Your task to perform on an android device: Clear the shopping cart on newegg. Add "acer predator" to the cart on newegg, then select checkout. Image 0: 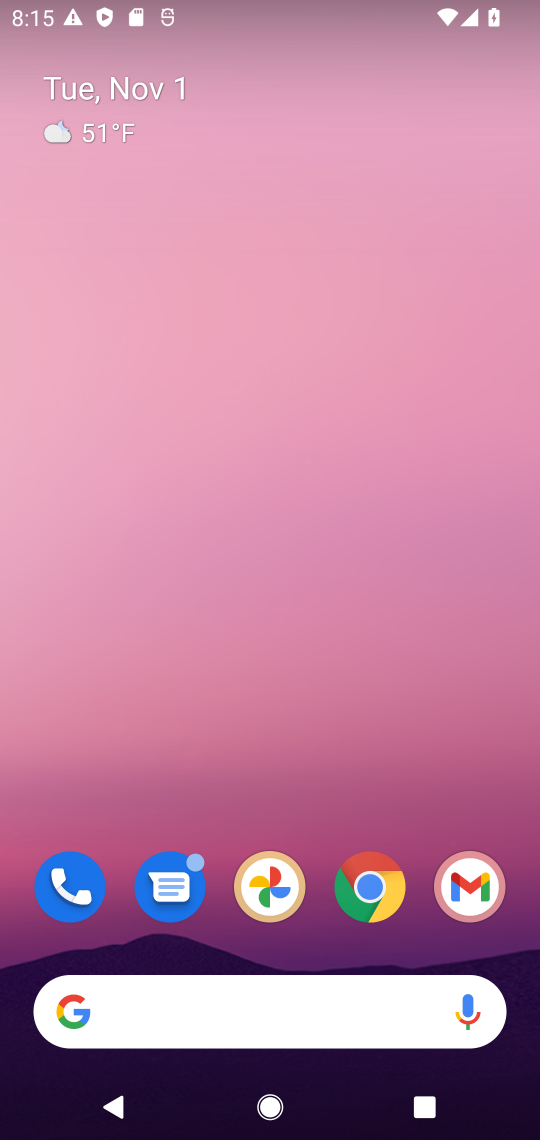
Step 0: drag from (203, 852) to (207, 204)
Your task to perform on an android device: Clear the shopping cart on newegg. Add "acer predator" to the cart on newegg, then select checkout. Image 1: 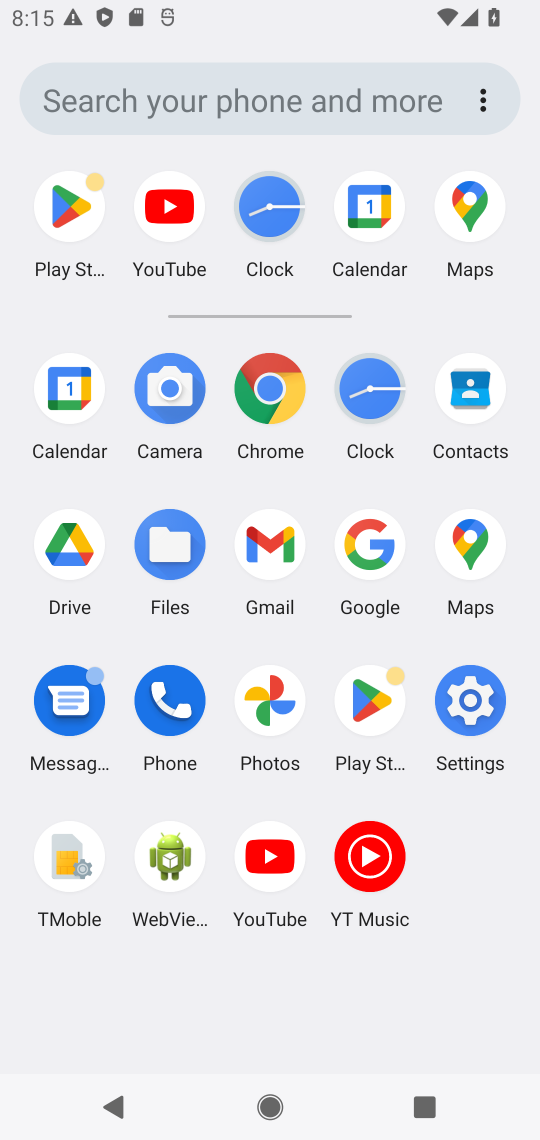
Step 1: click (370, 529)
Your task to perform on an android device: Clear the shopping cart on newegg. Add "acer predator" to the cart on newegg, then select checkout. Image 2: 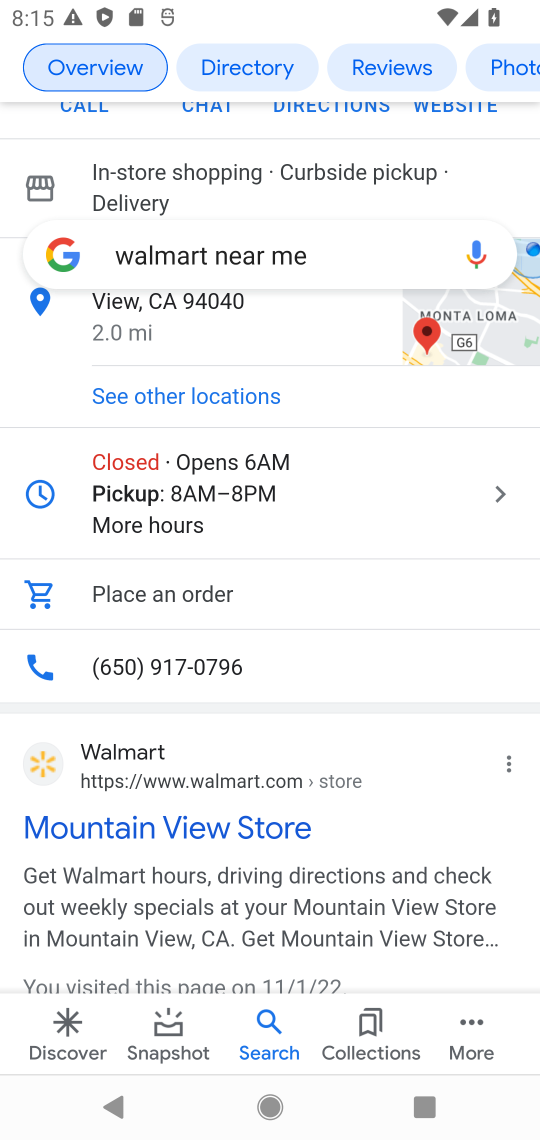
Step 2: click (195, 258)
Your task to perform on an android device: Clear the shopping cart on newegg. Add "acer predator" to the cart on newegg, then select checkout. Image 3: 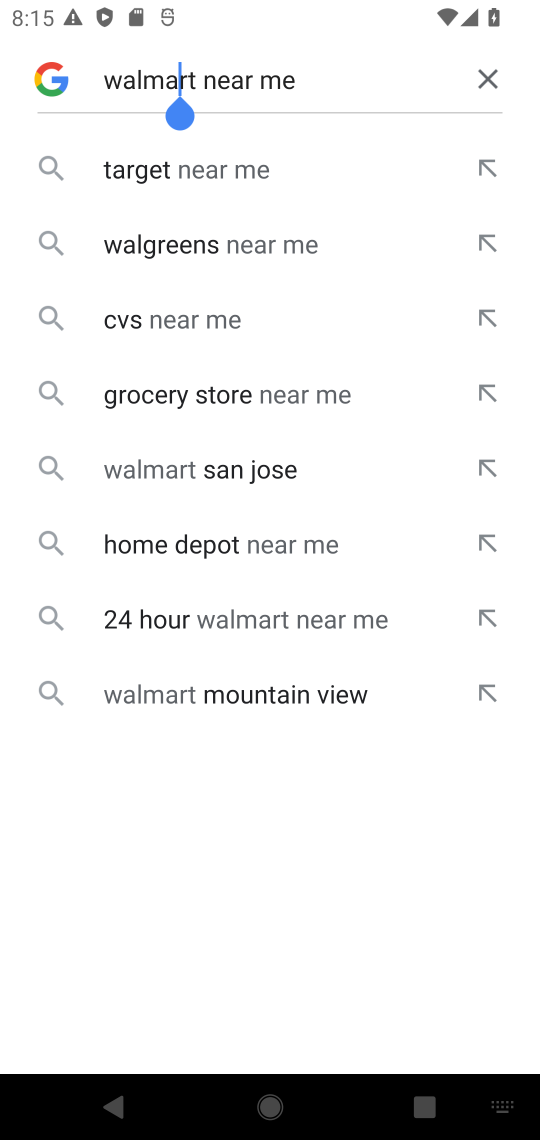
Step 3: click (500, 79)
Your task to perform on an android device: Clear the shopping cart on newegg. Add "acer predator" to the cart on newegg, then select checkout. Image 4: 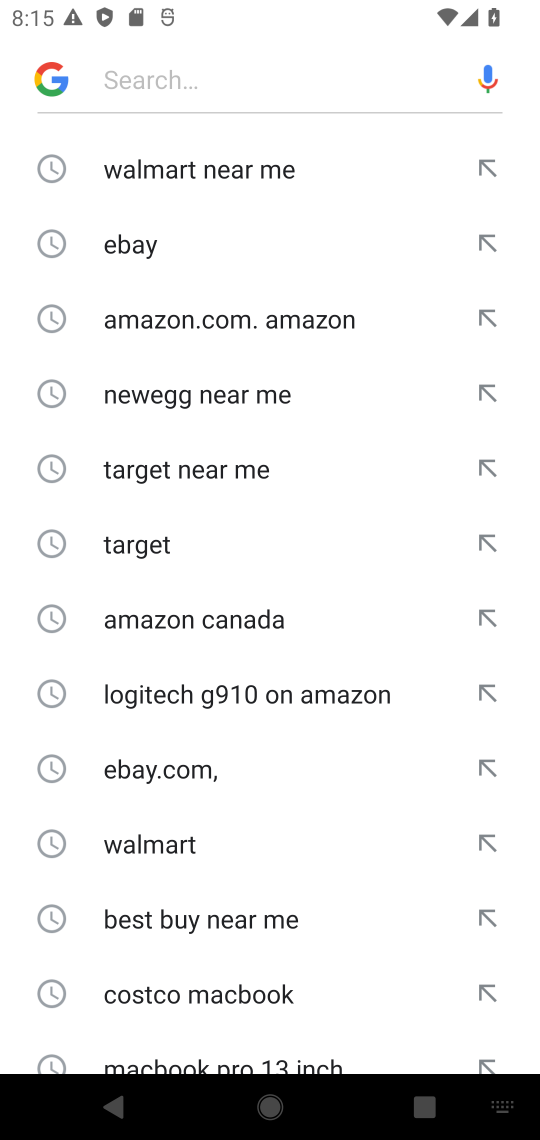
Step 4: click (208, 70)
Your task to perform on an android device: Clear the shopping cart on newegg. Add "acer predator" to the cart on newegg, then select checkout. Image 5: 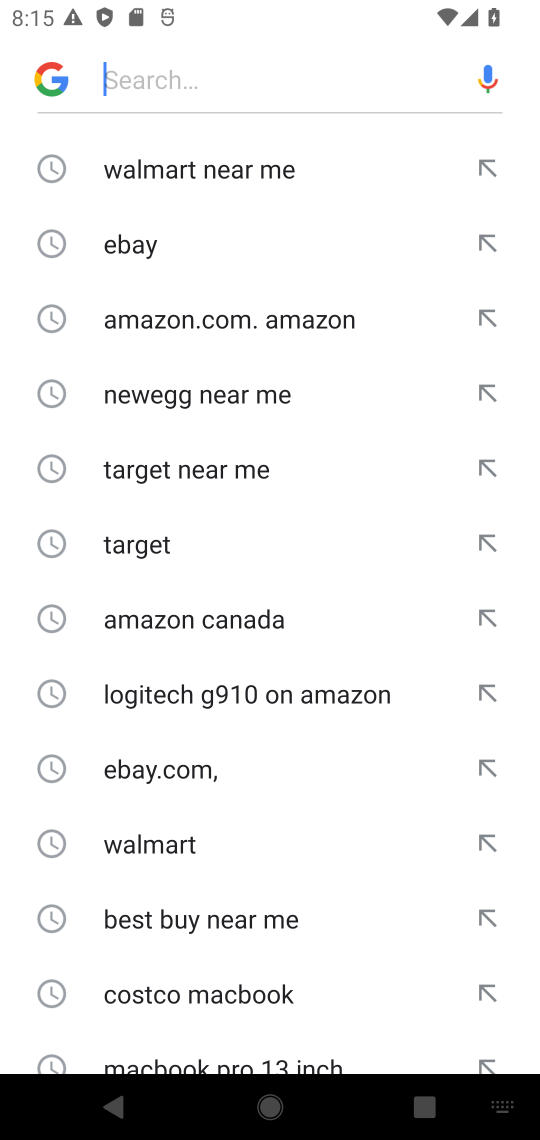
Step 5: type "newegg "
Your task to perform on an android device: Clear the shopping cart on newegg. Add "acer predator" to the cart on newegg, then select checkout. Image 6: 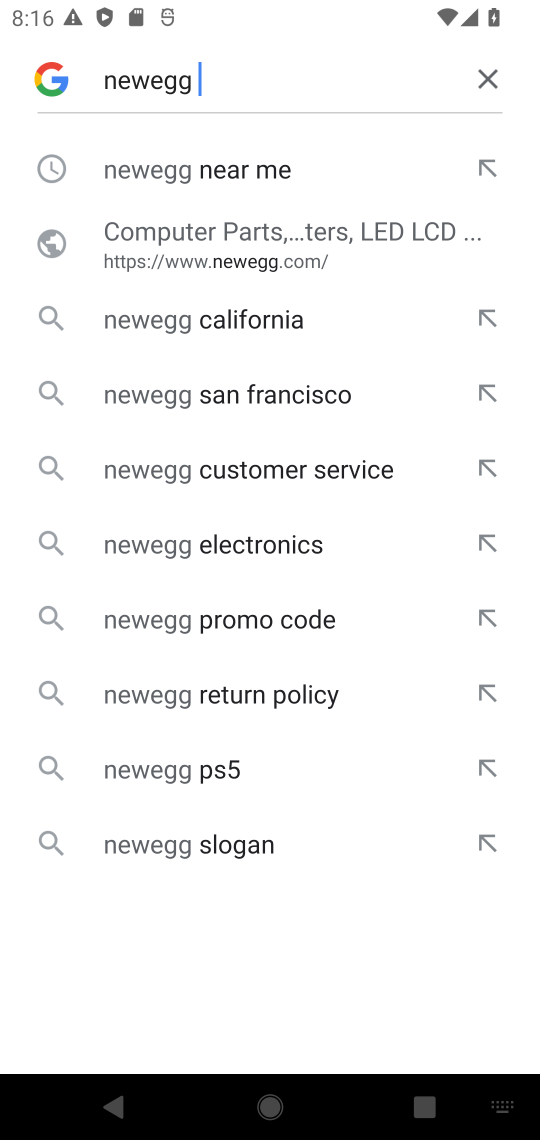
Step 6: click (224, 179)
Your task to perform on an android device: Clear the shopping cart on newegg. Add "acer predator" to the cart on newegg, then select checkout. Image 7: 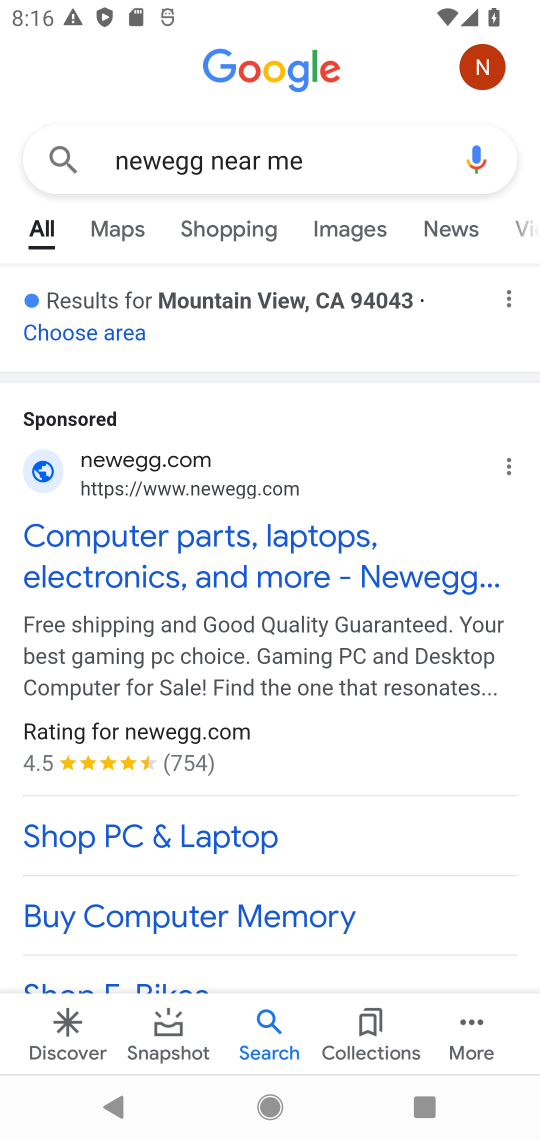
Step 7: drag from (225, 873) to (243, 176)
Your task to perform on an android device: Clear the shopping cart on newegg. Add "acer predator" to the cart on newegg, then select checkout. Image 8: 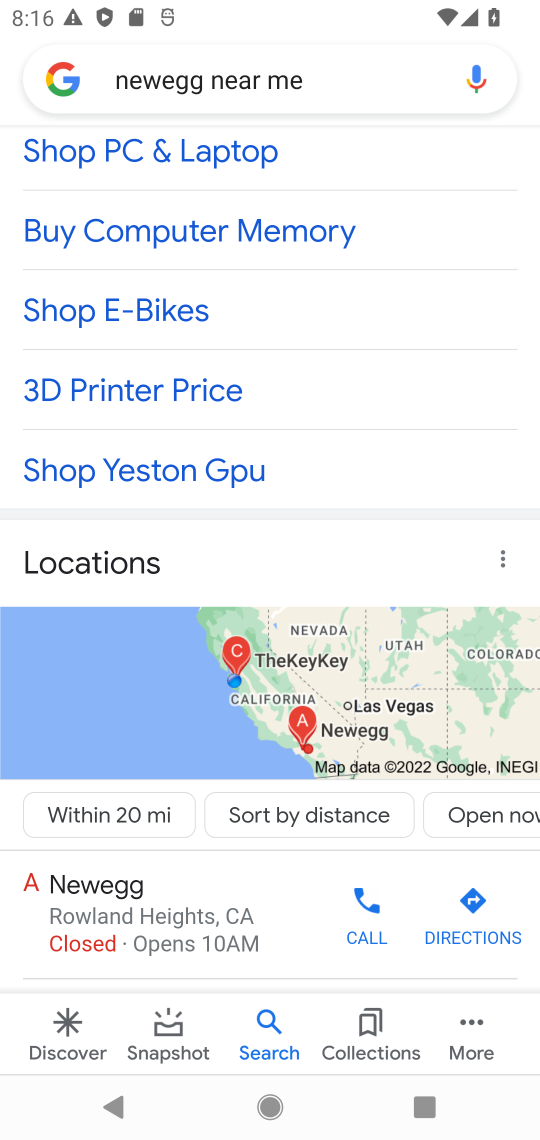
Step 8: drag from (217, 851) to (190, 148)
Your task to perform on an android device: Clear the shopping cart on newegg. Add "acer predator" to the cart on newegg, then select checkout. Image 9: 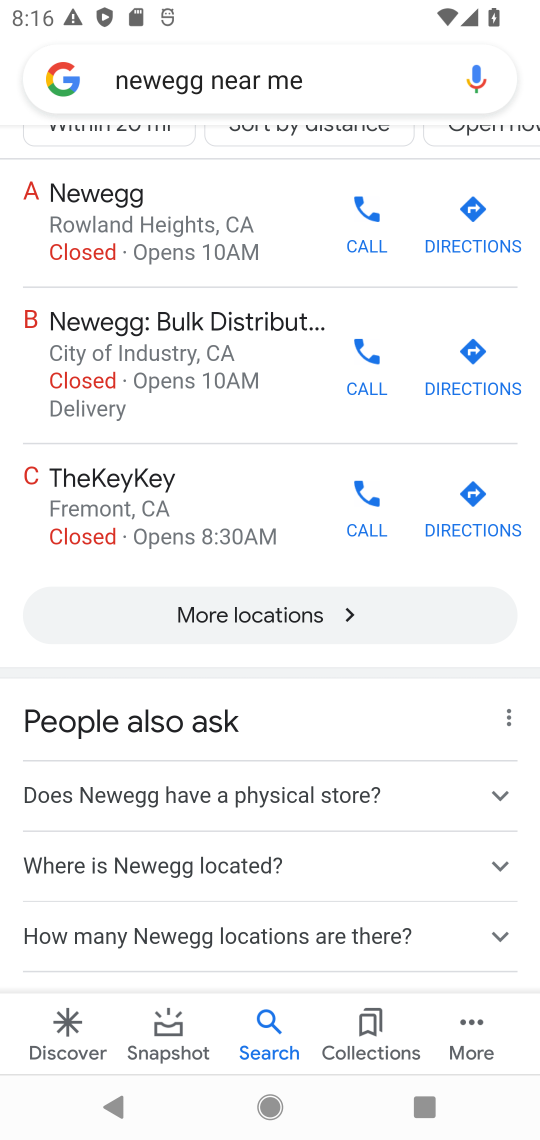
Step 9: drag from (227, 796) to (263, 173)
Your task to perform on an android device: Clear the shopping cart on newegg. Add "acer predator" to the cart on newegg, then select checkout. Image 10: 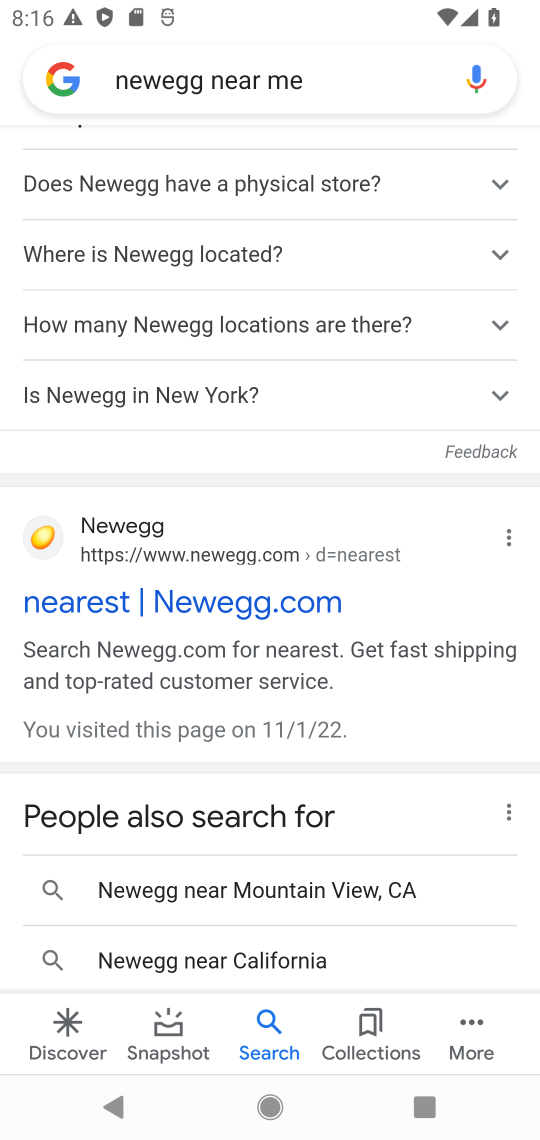
Step 10: click (46, 536)
Your task to perform on an android device: Clear the shopping cart on newegg. Add "acer predator" to the cart on newegg, then select checkout. Image 11: 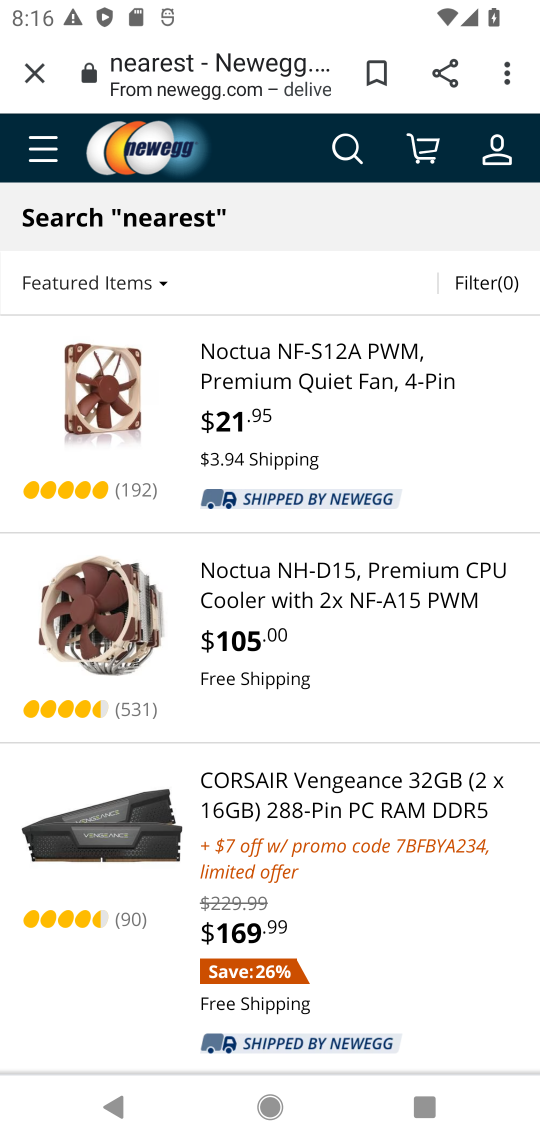
Step 11: click (357, 151)
Your task to perform on an android device: Clear the shopping cart on newegg. Add "acer predator" to the cart on newegg, then select checkout. Image 12: 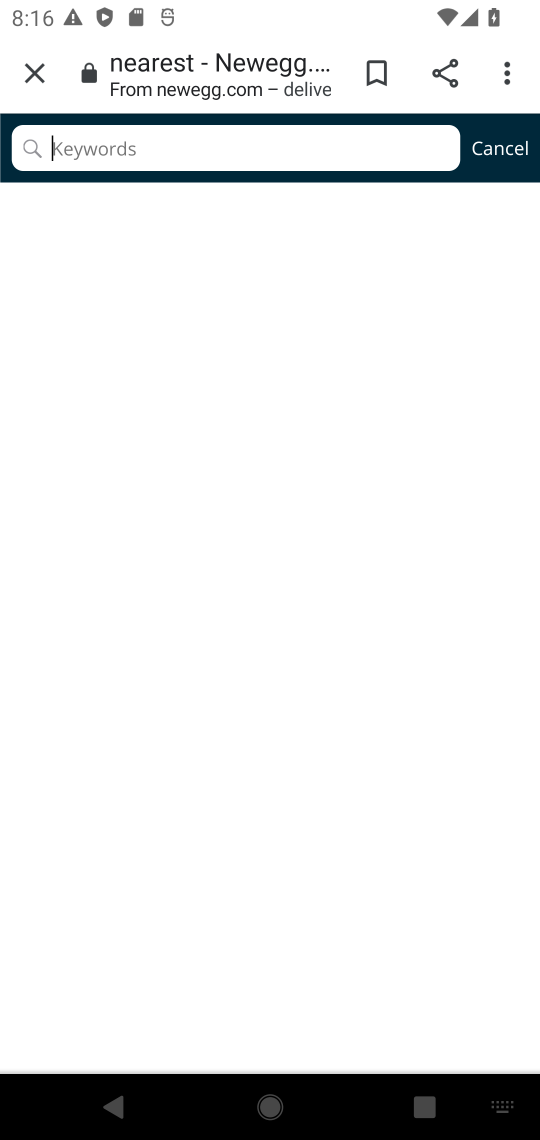
Step 12: click (211, 139)
Your task to perform on an android device: Clear the shopping cart on newegg. Add "acer predator" to the cart on newegg, then select checkout. Image 13: 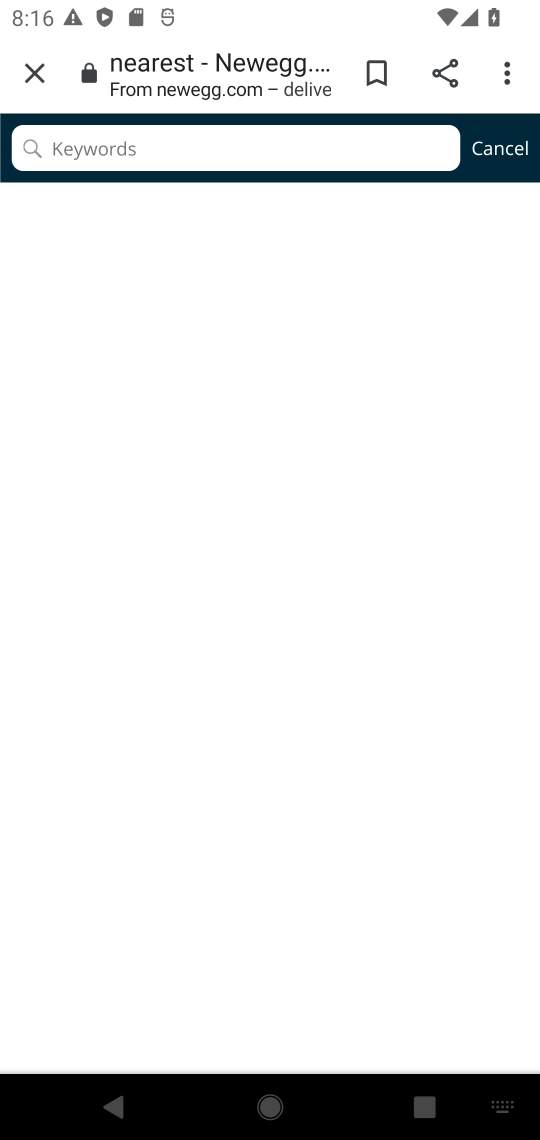
Step 13: type "acer predator "
Your task to perform on an android device: Clear the shopping cart on newegg. Add "acer predator" to the cart on newegg, then select checkout. Image 14: 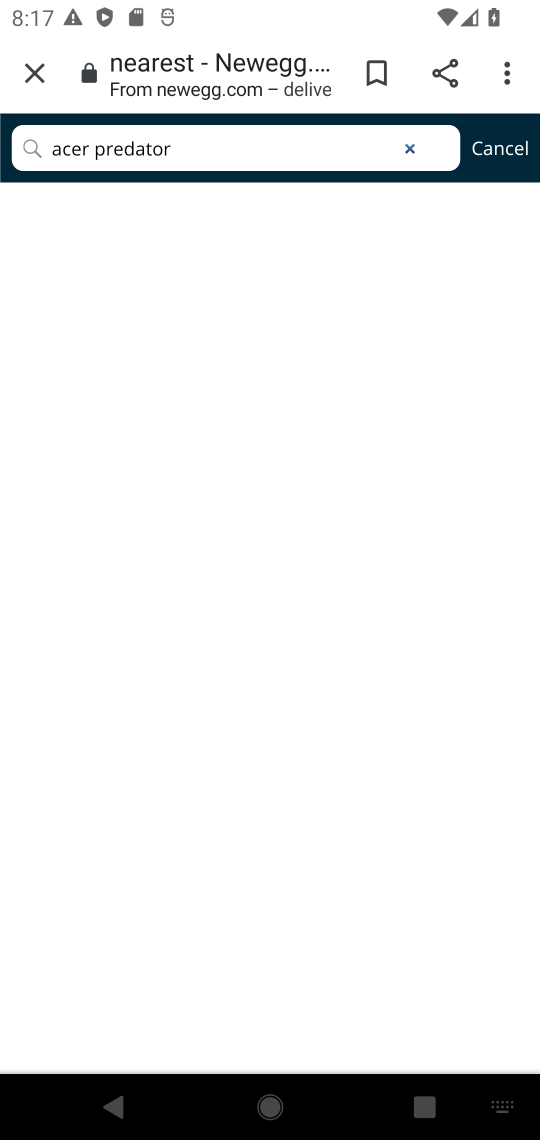
Step 14: task complete